Your task to perform on an android device: turn on javascript in the chrome app Image 0: 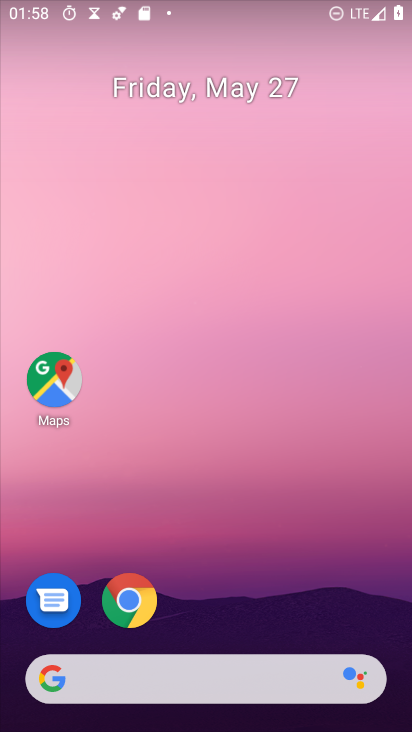
Step 0: click (141, 606)
Your task to perform on an android device: turn on javascript in the chrome app Image 1: 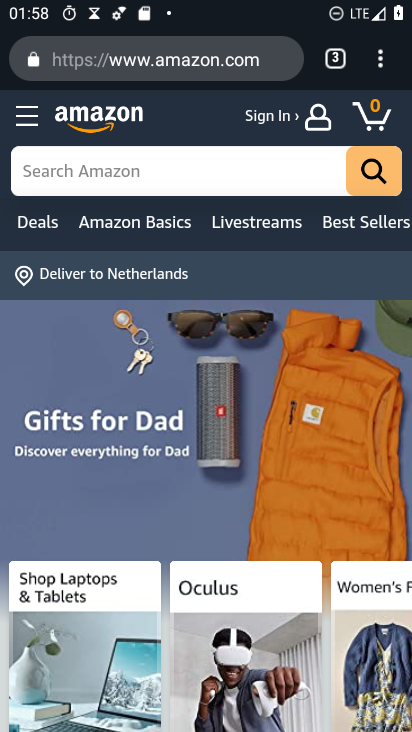
Step 1: click (375, 68)
Your task to perform on an android device: turn on javascript in the chrome app Image 2: 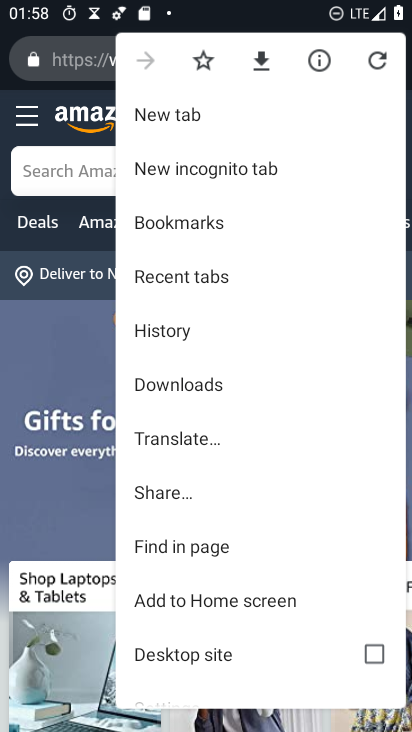
Step 2: drag from (222, 663) to (223, 357)
Your task to perform on an android device: turn on javascript in the chrome app Image 3: 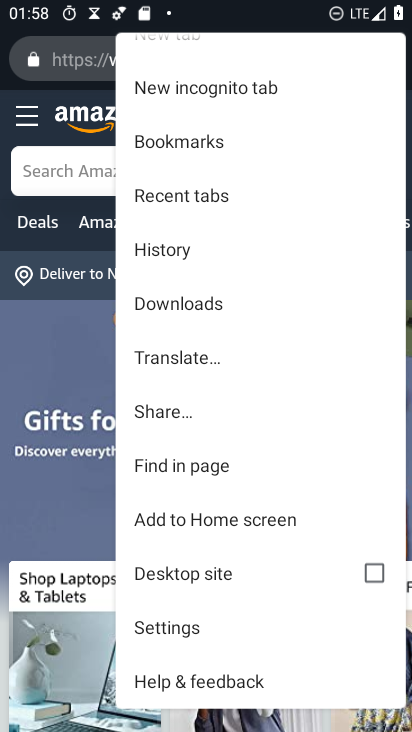
Step 3: click (220, 630)
Your task to perform on an android device: turn on javascript in the chrome app Image 4: 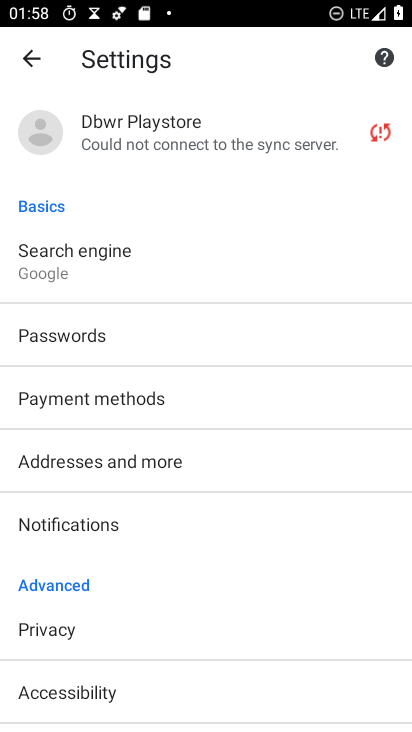
Step 4: drag from (147, 595) to (152, 346)
Your task to perform on an android device: turn on javascript in the chrome app Image 5: 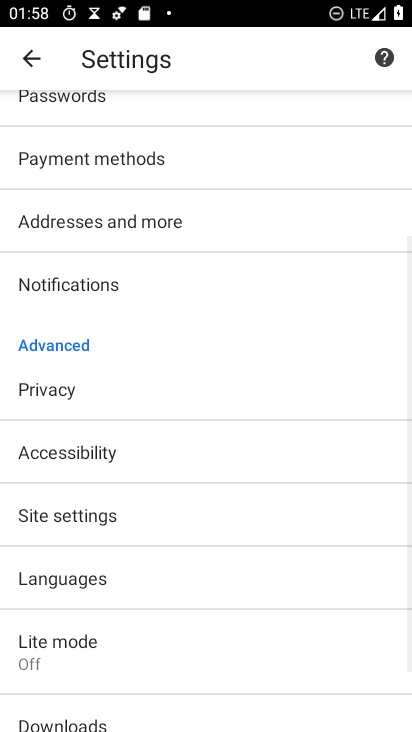
Step 5: click (135, 529)
Your task to perform on an android device: turn on javascript in the chrome app Image 6: 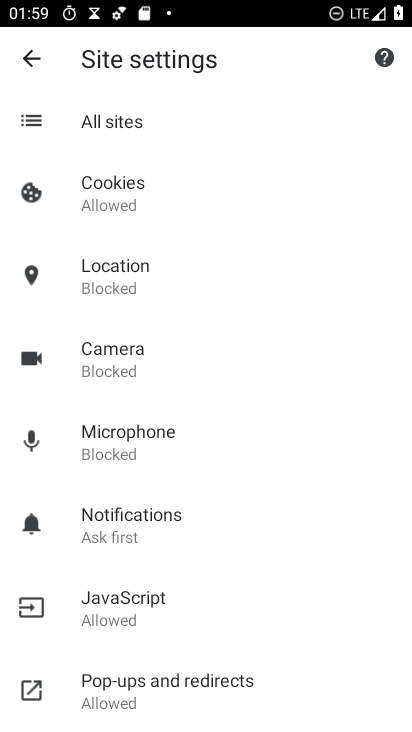
Step 6: click (240, 605)
Your task to perform on an android device: turn on javascript in the chrome app Image 7: 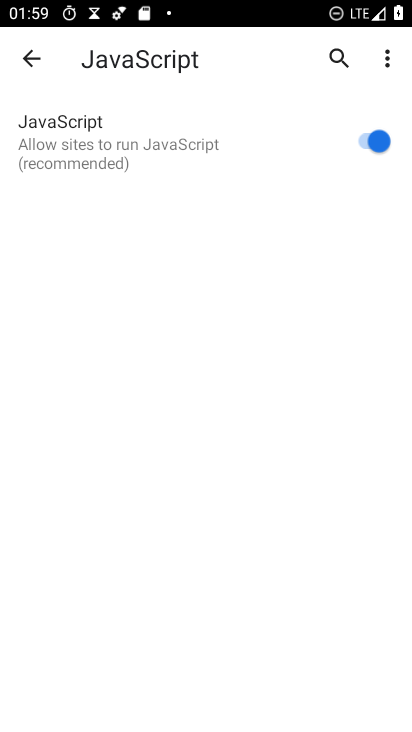
Step 7: task complete